Your task to perform on an android device: turn on data saver in the chrome app Image 0: 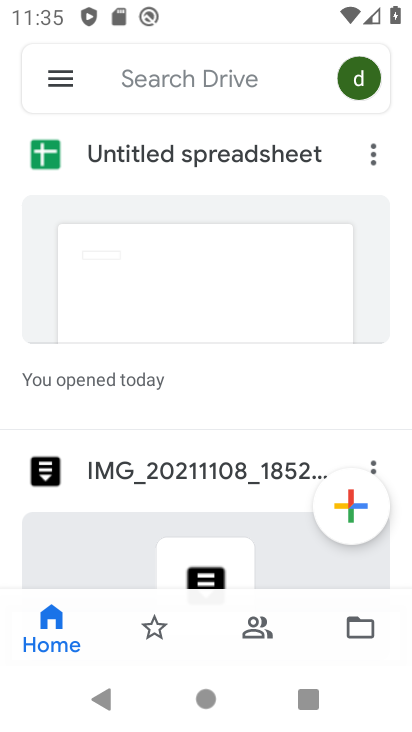
Step 0: press home button
Your task to perform on an android device: turn on data saver in the chrome app Image 1: 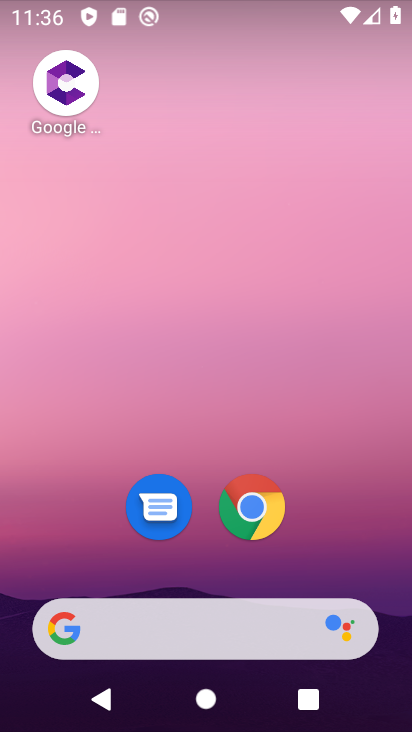
Step 1: click (246, 501)
Your task to perform on an android device: turn on data saver in the chrome app Image 2: 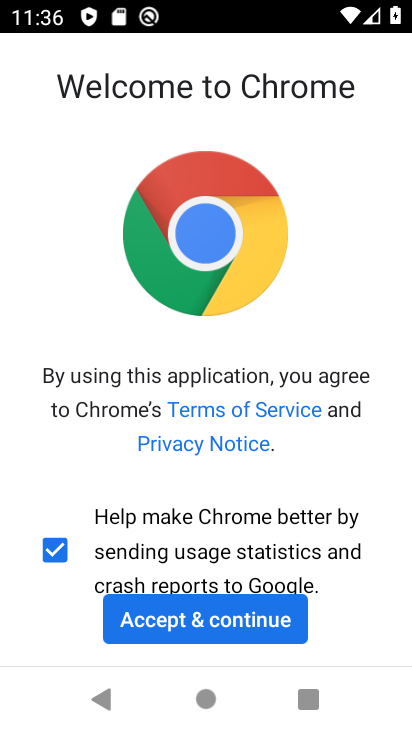
Step 2: click (199, 620)
Your task to perform on an android device: turn on data saver in the chrome app Image 3: 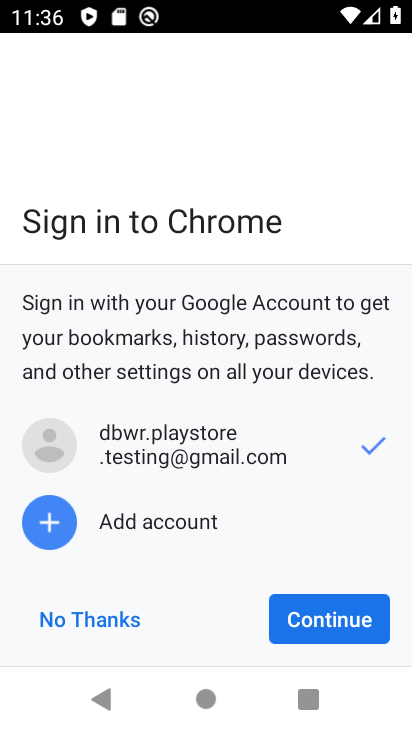
Step 3: click (348, 617)
Your task to perform on an android device: turn on data saver in the chrome app Image 4: 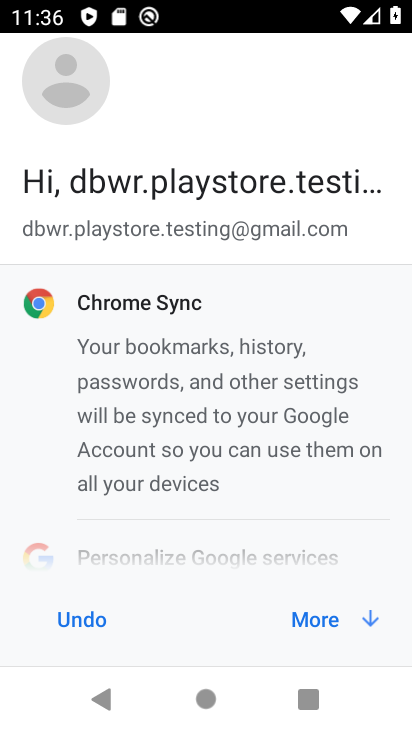
Step 4: click (322, 614)
Your task to perform on an android device: turn on data saver in the chrome app Image 5: 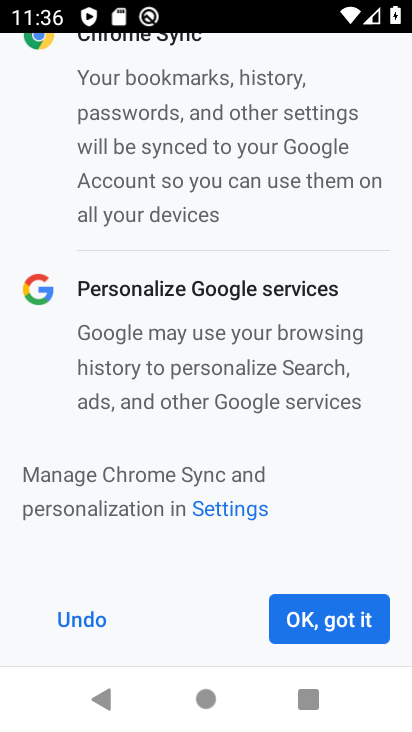
Step 5: click (322, 614)
Your task to perform on an android device: turn on data saver in the chrome app Image 6: 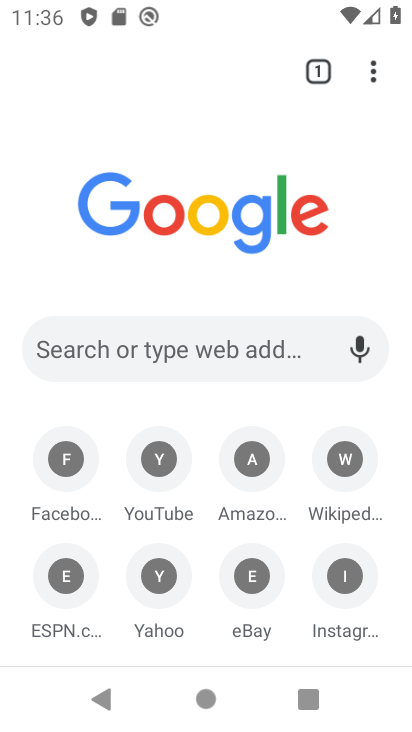
Step 6: click (373, 76)
Your task to perform on an android device: turn on data saver in the chrome app Image 7: 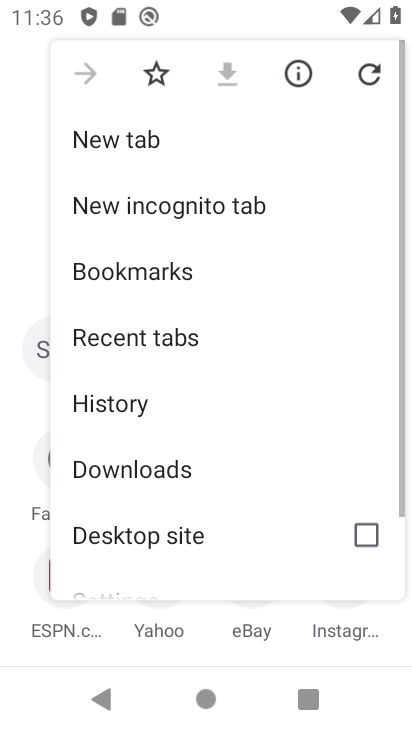
Step 7: drag from (109, 560) to (127, 165)
Your task to perform on an android device: turn on data saver in the chrome app Image 8: 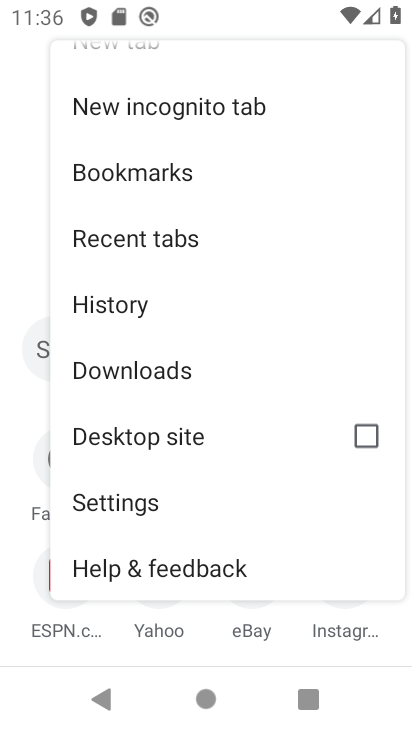
Step 8: click (108, 495)
Your task to perform on an android device: turn on data saver in the chrome app Image 9: 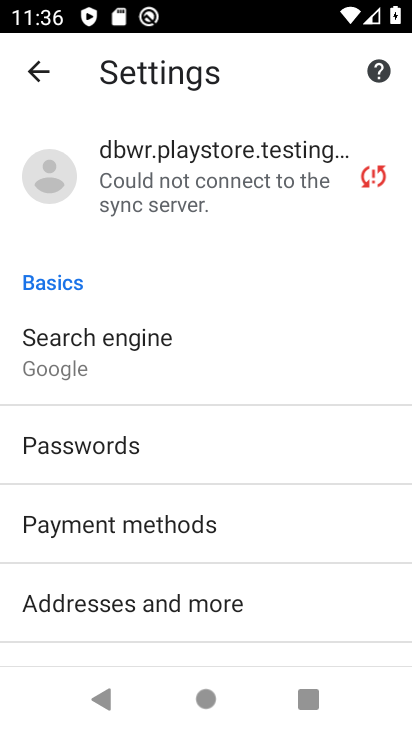
Step 9: drag from (146, 633) to (155, 289)
Your task to perform on an android device: turn on data saver in the chrome app Image 10: 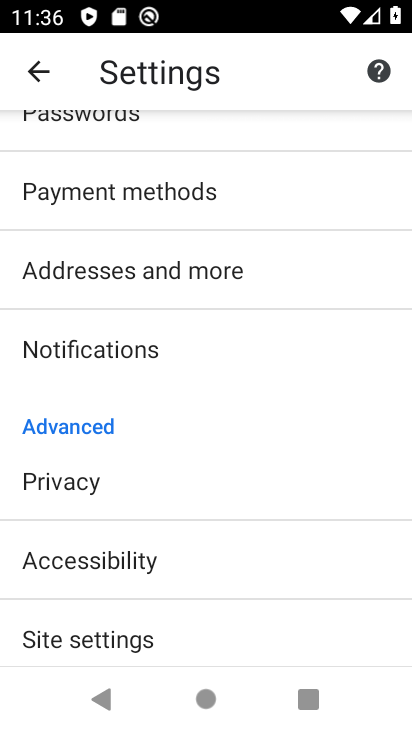
Step 10: drag from (123, 626) to (126, 311)
Your task to perform on an android device: turn on data saver in the chrome app Image 11: 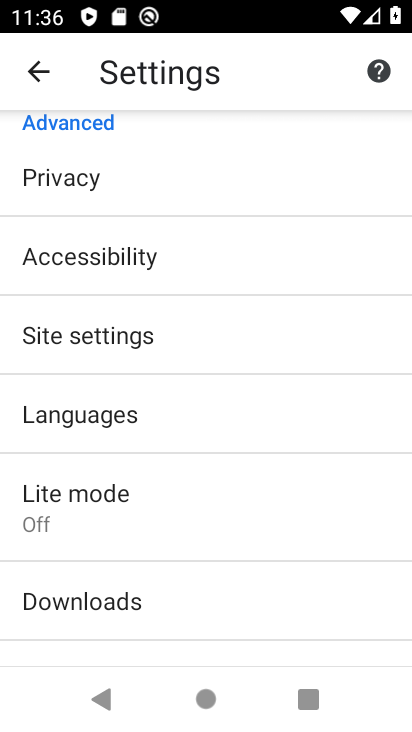
Step 11: click (94, 499)
Your task to perform on an android device: turn on data saver in the chrome app Image 12: 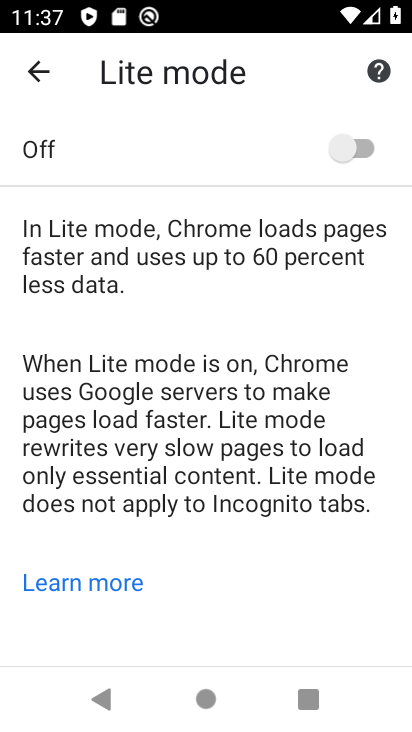
Step 12: click (359, 151)
Your task to perform on an android device: turn on data saver in the chrome app Image 13: 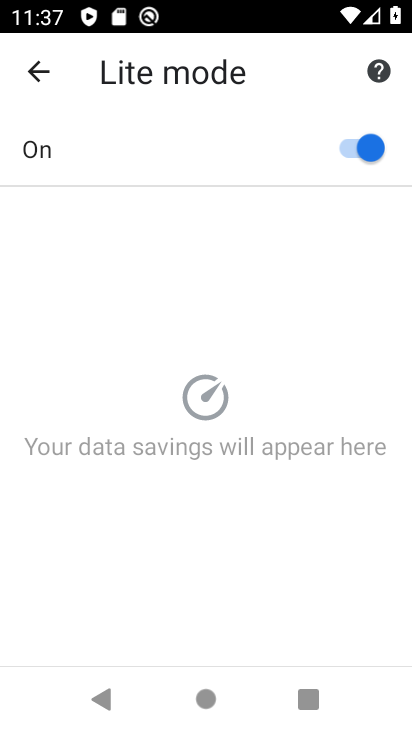
Step 13: task complete